Your task to perform on an android device: allow cookies in the chrome app Image 0: 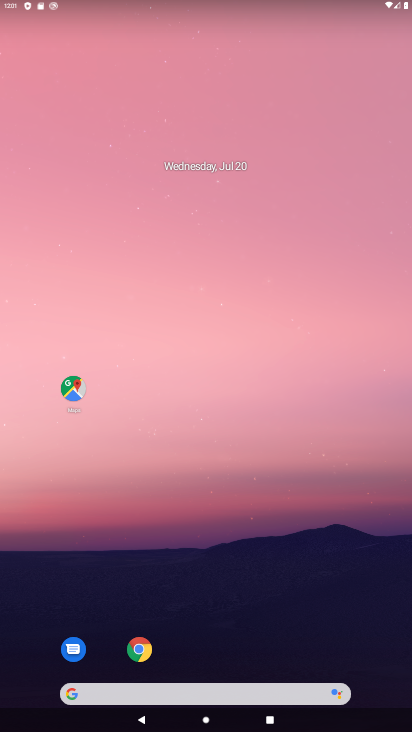
Step 0: click (140, 649)
Your task to perform on an android device: allow cookies in the chrome app Image 1: 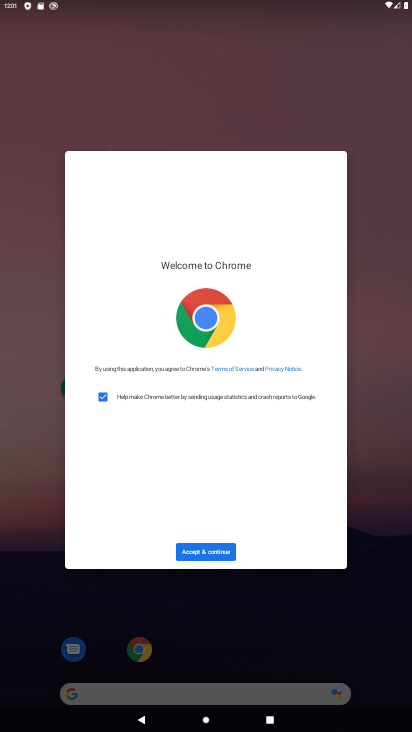
Step 1: click (213, 553)
Your task to perform on an android device: allow cookies in the chrome app Image 2: 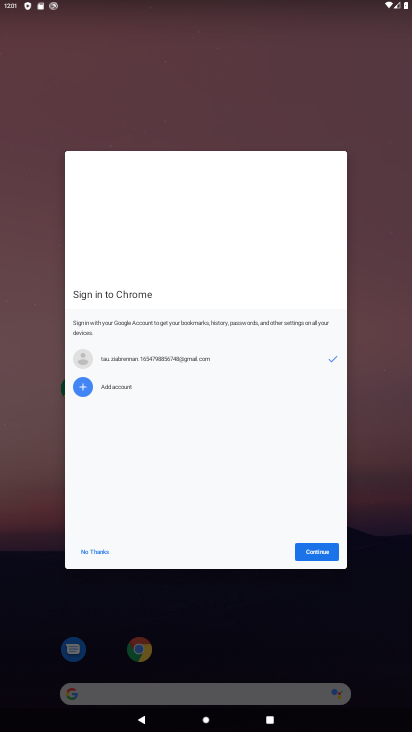
Step 2: click (308, 551)
Your task to perform on an android device: allow cookies in the chrome app Image 3: 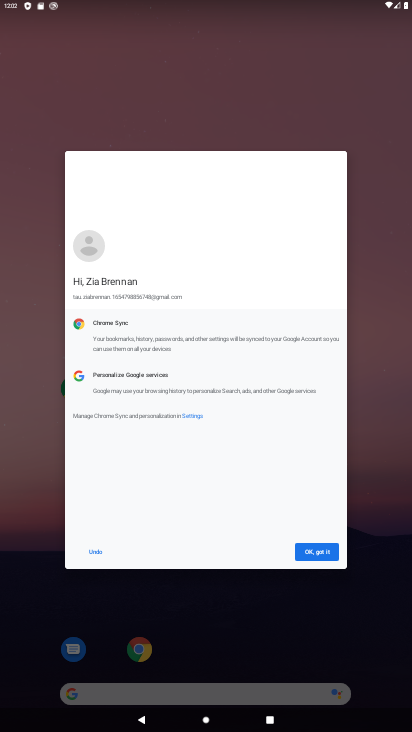
Step 3: click (308, 551)
Your task to perform on an android device: allow cookies in the chrome app Image 4: 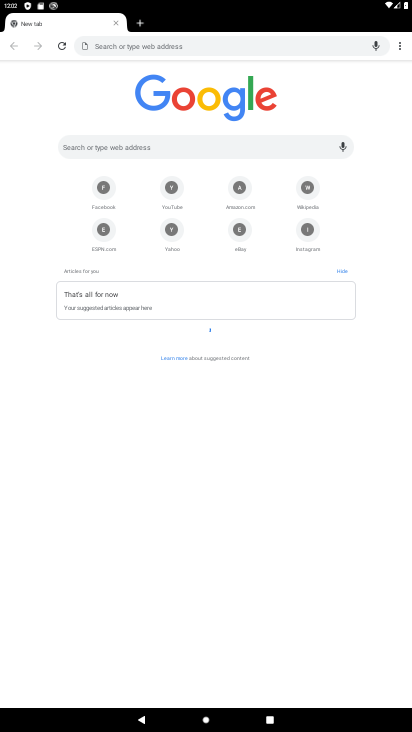
Step 4: click (400, 42)
Your task to perform on an android device: allow cookies in the chrome app Image 5: 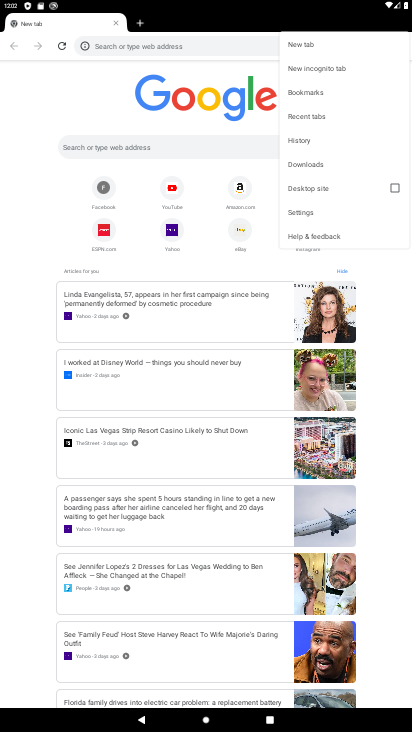
Step 5: click (336, 208)
Your task to perform on an android device: allow cookies in the chrome app Image 6: 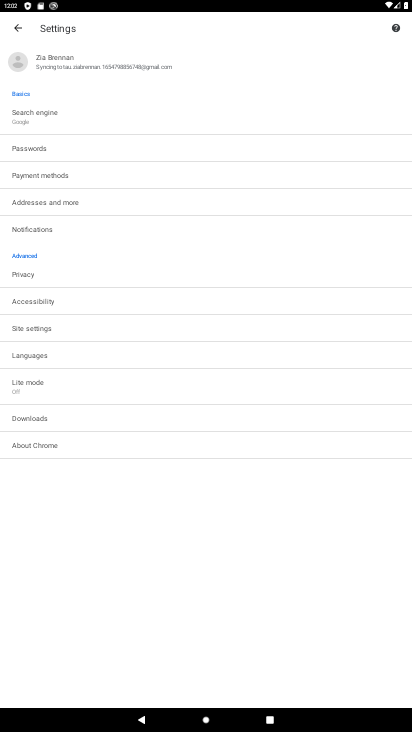
Step 6: click (64, 326)
Your task to perform on an android device: allow cookies in the chrome app Image 7: 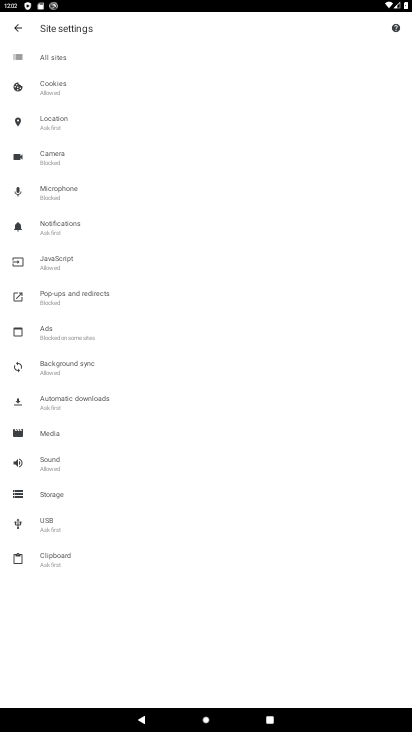
Step 7: click (92, 87)
Your task to perform on an android device: allow cookies in the chrome app Image 8: 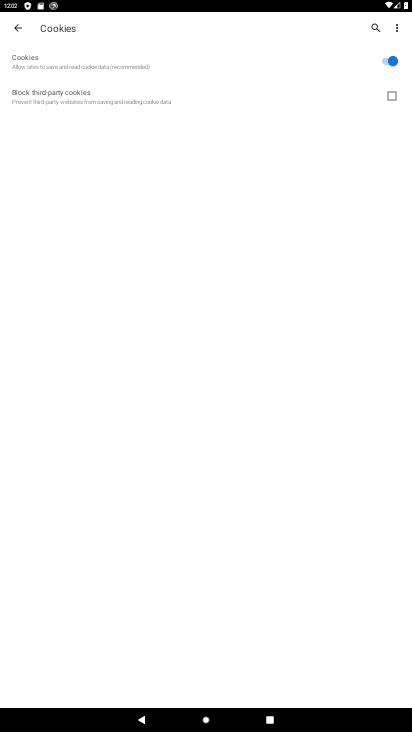
Step 8: task complete